Your task to perform on an android device: Open internet settings Image 0: 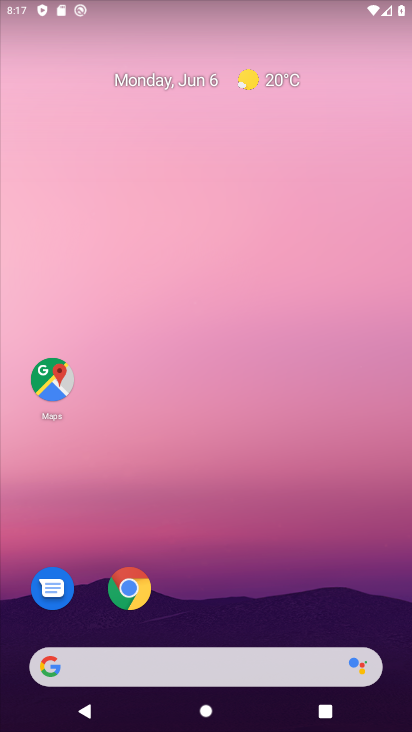
Step 0: drag from (295, 580) to (275, 60)
Your task to perform on an android device: Open internet settings Image 1: 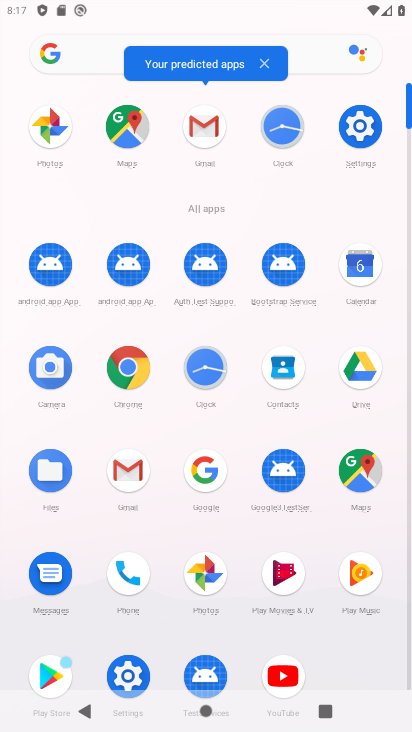
Step 1: click (361, 130)
Your task to perform on an android device: Open internet settings Image 2: 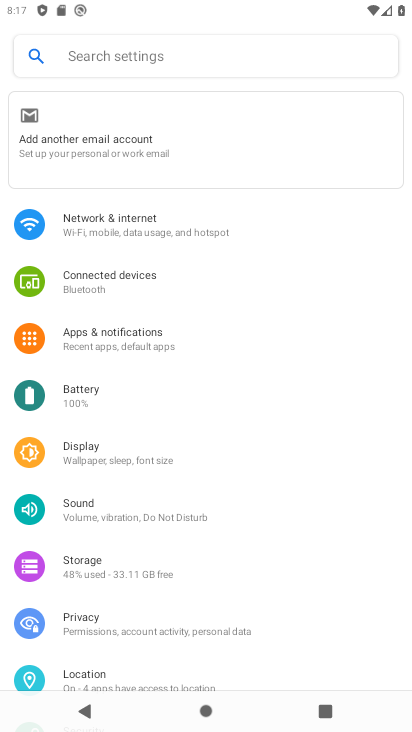
Step 2: click (88, 228)
Your task to perform on an android device: Open internet settings Image 3: 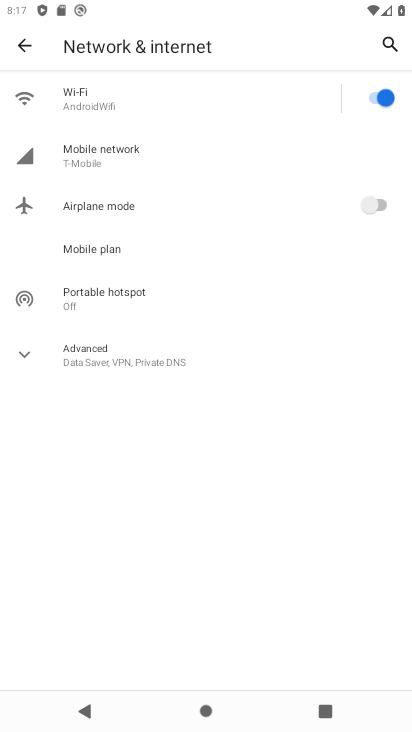
Step 3: task complete